Your task to perform on an android device: Go to display settings Image 0: 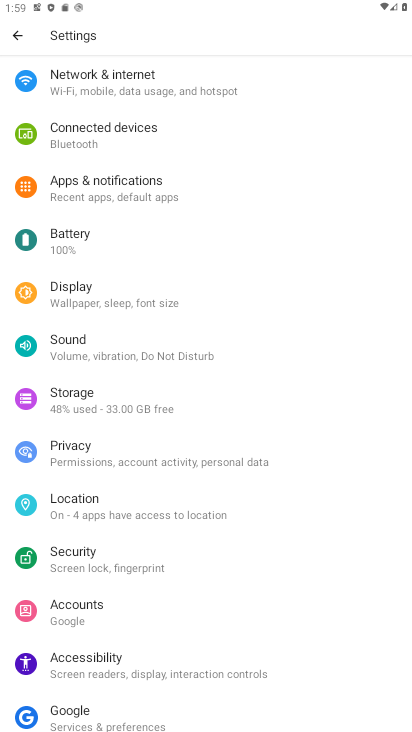
Step 0: click (107, 297)
Your task to perform on an android device: Go to display settings Image 1: 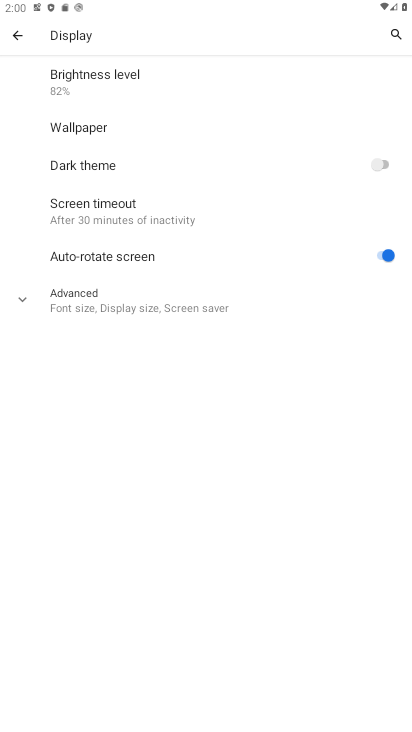
Step 1: task complete